Your task to perform on an android device: toggle location history Image 0: 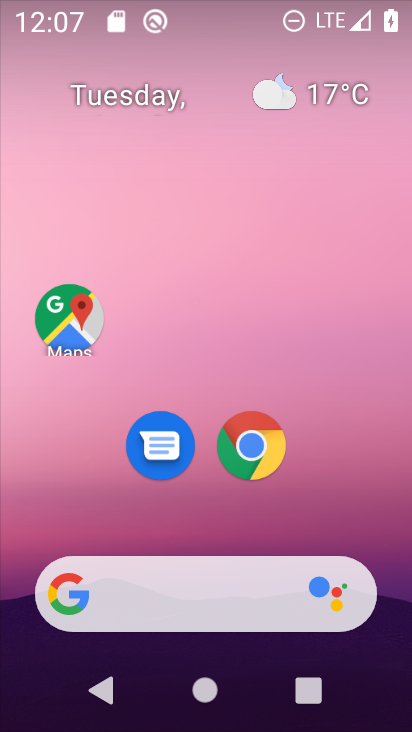
Step 0: click (69, 314)
Your task to perform on an android device: toggle location history Image 1: 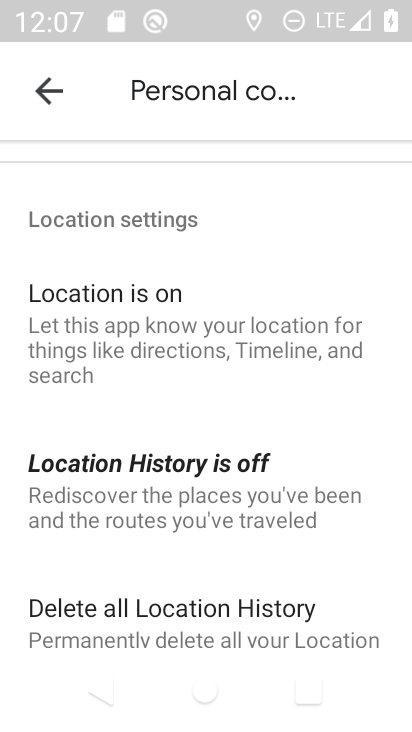
Step 1: click (165, 506)
Your task to perform on an android device: toggle location history Image 2: 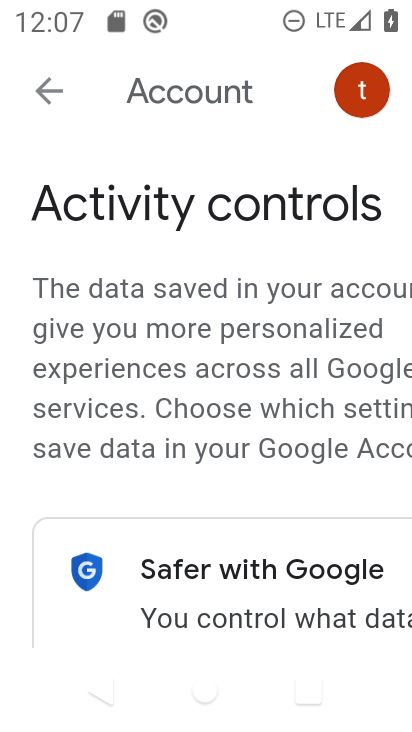
Step 2: task complete